Your task to perform on an android device: Go to accessibility settings Image 0: 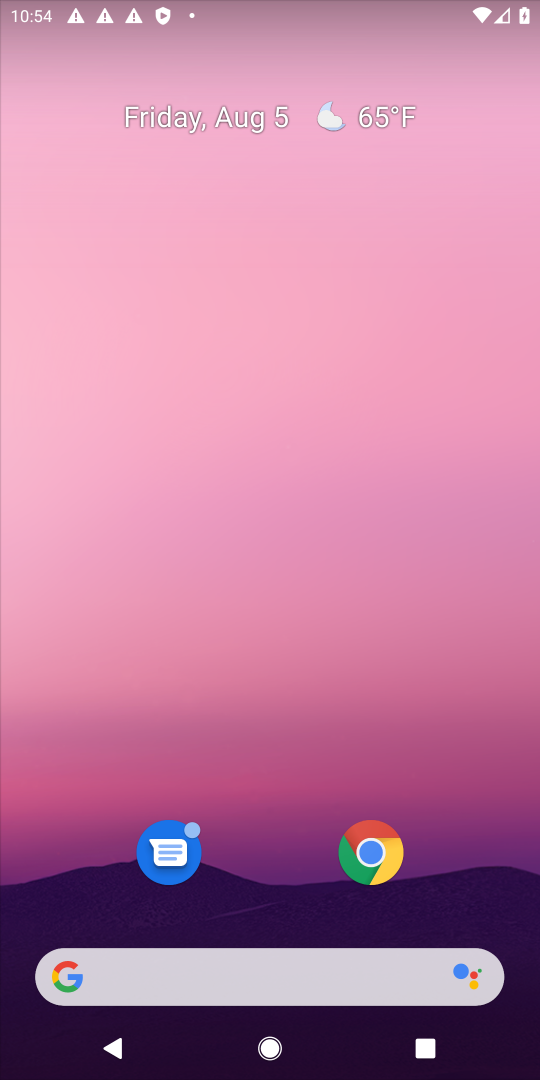
Step 0: drag from (338, 1015) to (173, 149)
Your task to perform on an android device: Go to accessibility settings Image 1: 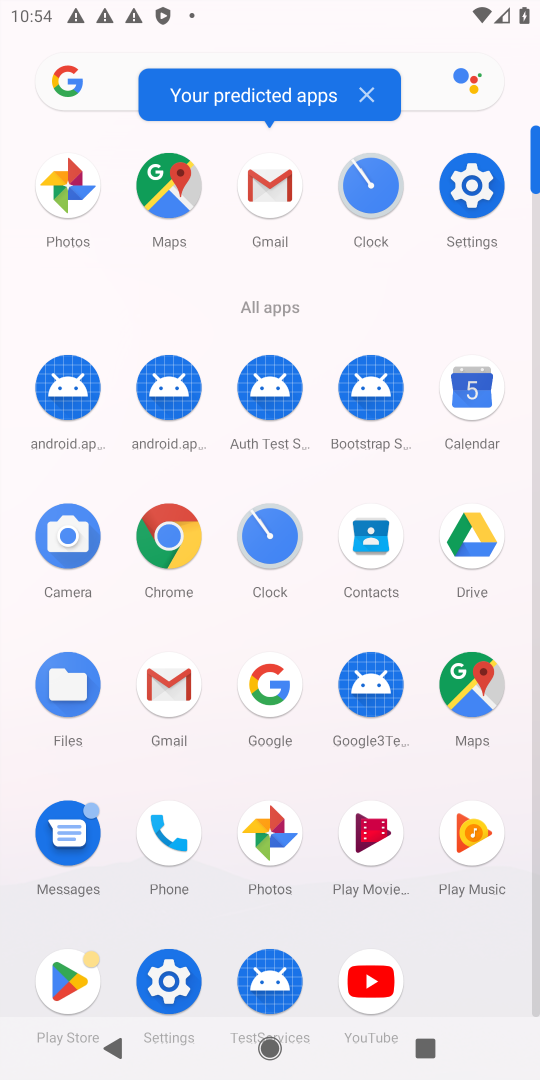
Step 1: click (471, 205)
Your task to perform on an android device: Go to accessibility settings Image 2: 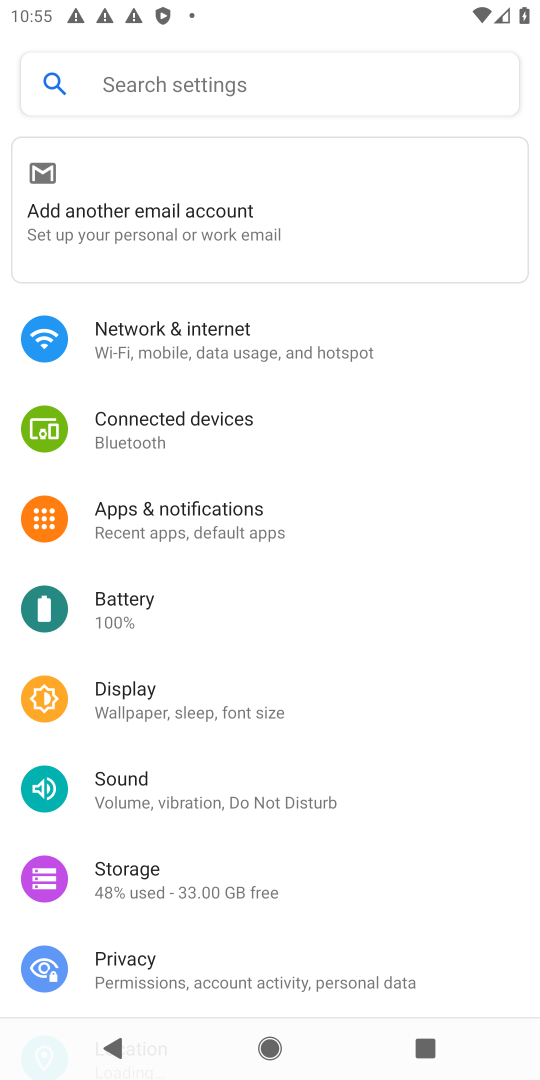
Step 2: click (147, 87)
Your task to perform on an android device: Go to accessibility settings Image 3: 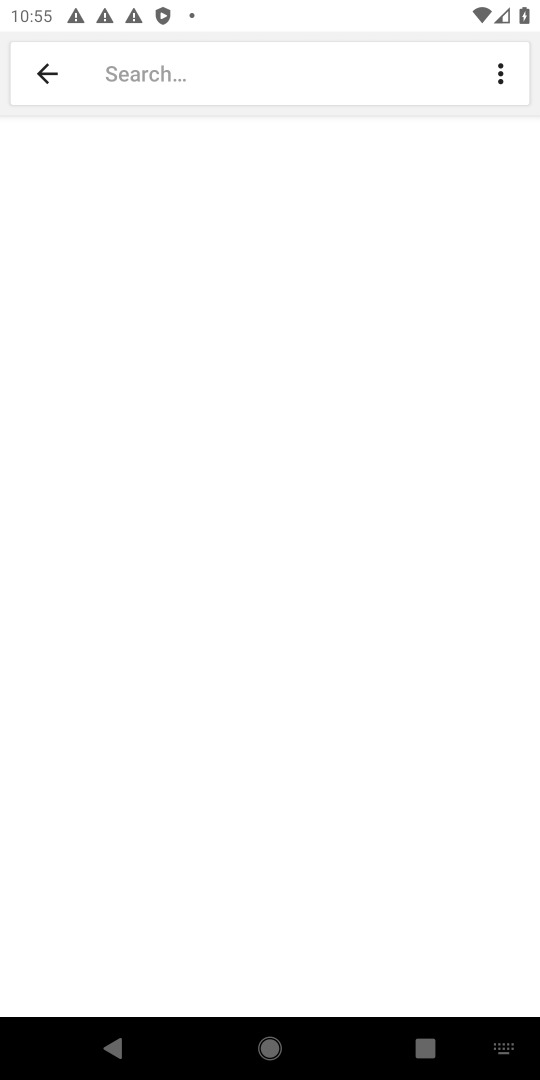
Step 3: click (509, 1040)
Your task to perform on an android device: Go to accessibility settings Image 4: 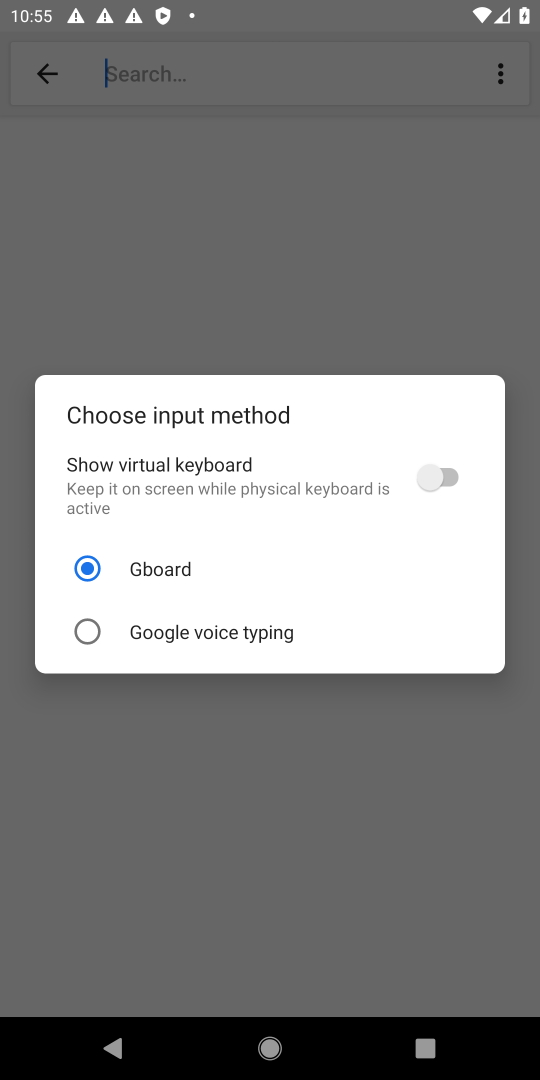
Step 4: click (446, 467)
Your task to perform on an android device: Go to accessibility settings Image 5: 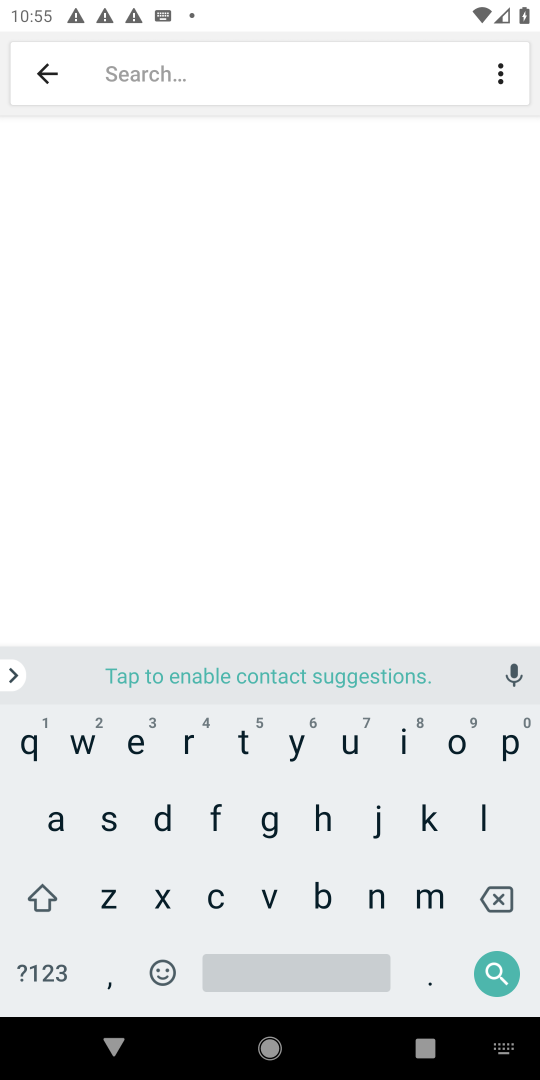
Step 5: click (57, 813)
Your task to perform on an android device: Go to accessibility settings Image 6: 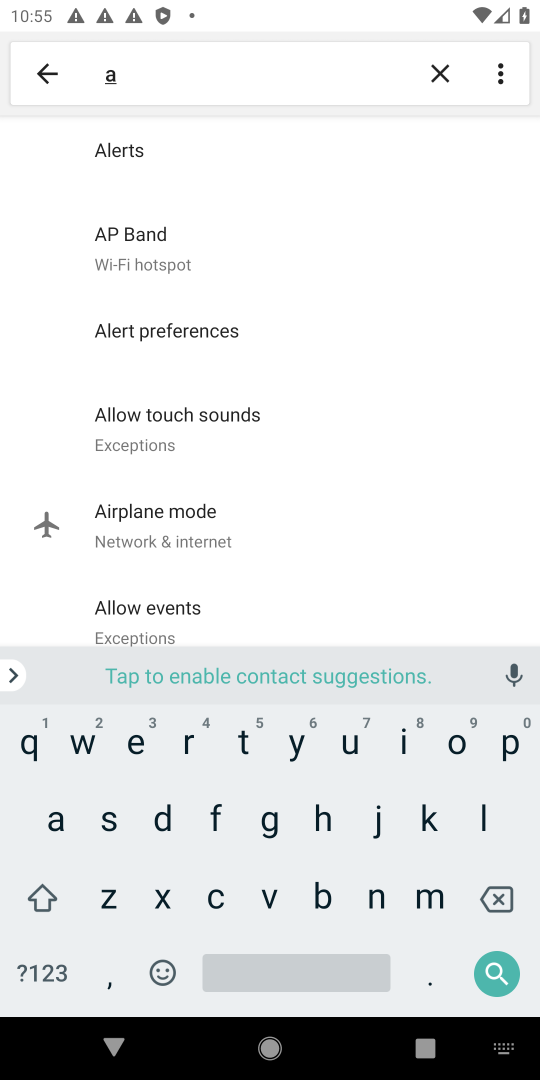
Step 6: click (212, 895)
Your task to perform on an android device: Go to accessibility settings Image 7: 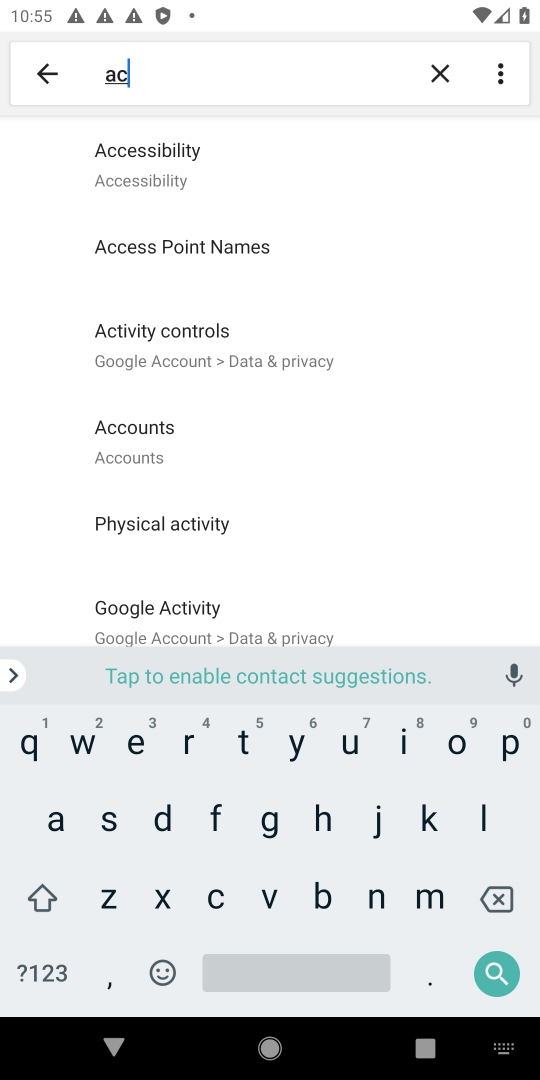
Step 7: click (211, 171)
Your task to perform on an android device: Go to accessibility settings Image 8: 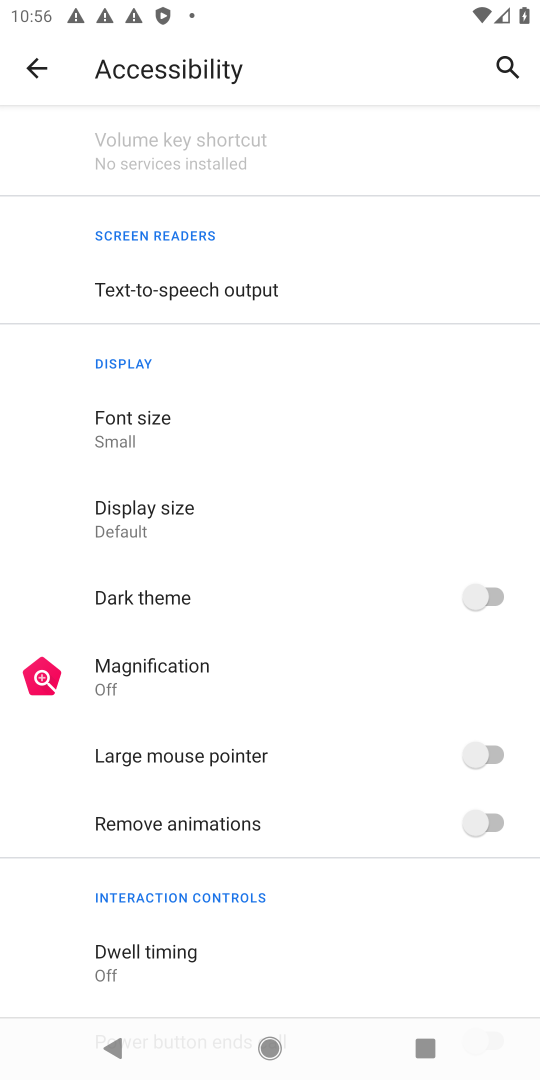
Step 8: task complete